Your task to perform on an android device: open chrome and create a bookmark for the current page Image 0: 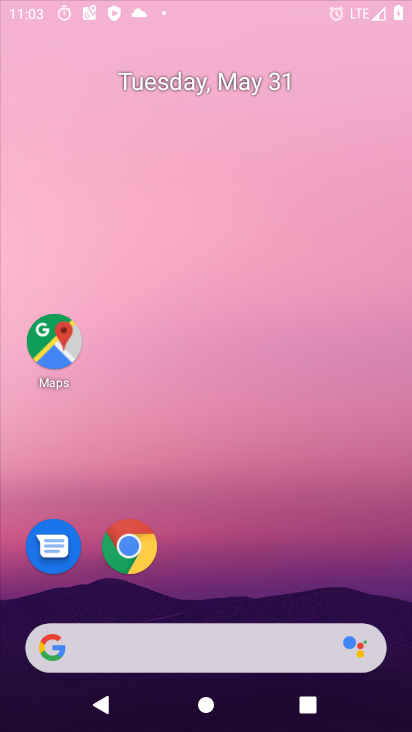
Step 0: click (255, 62)
Your task to perform on an android device: open chrome and create a bookmark for the current page Image 1: 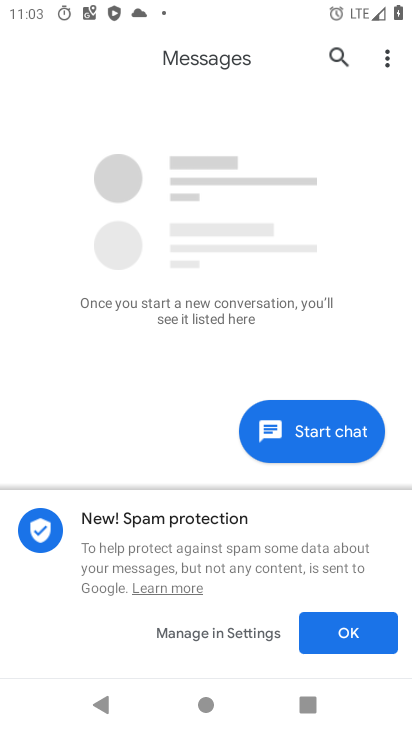
Step 1: drag from (228, 546) to (231, 198)
Your task to perform on an android device: open chrome and create a bookmark for the current page Image 2: 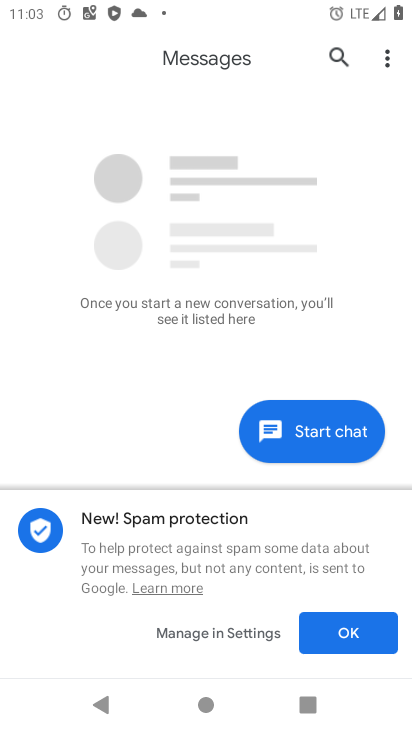
Step 2: press home button
Your task to perform on an android device: open chrome and create a bookmark for the current page Image 3: 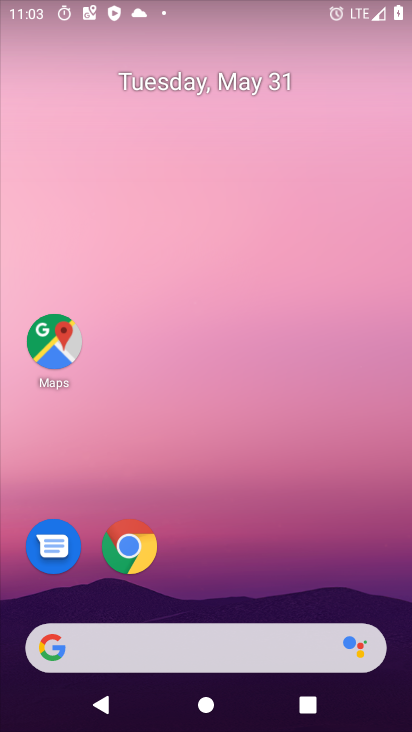
Step 3: click (137, 535)
Your task to perform on an android device: open chrome and create a bookmark for the current page Image 4: 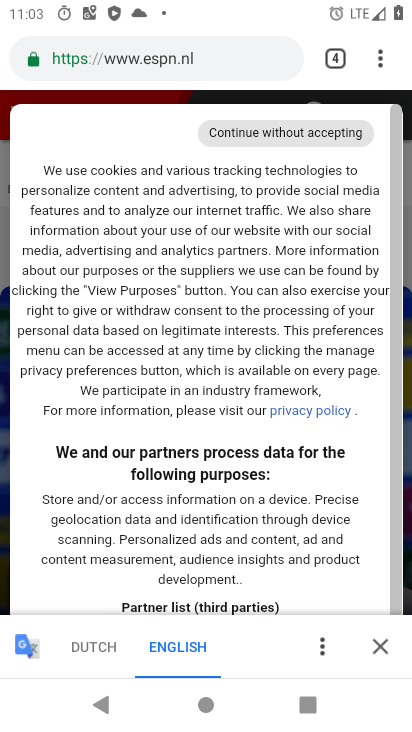
Step 4: click (376, 50)
Your task to perform on an android device: open chrome and create a bookmark for the current page Image 5: 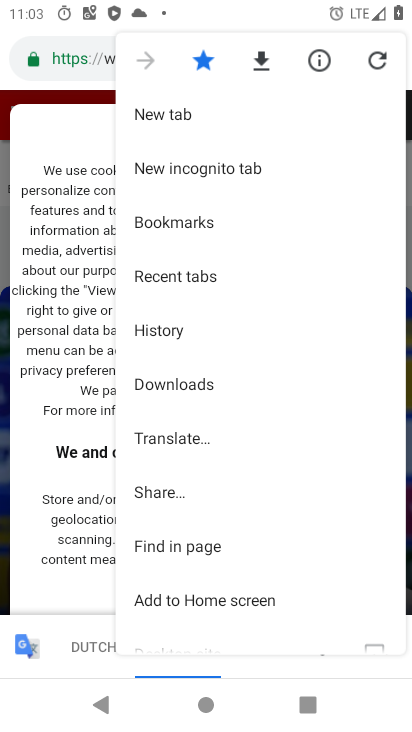
Step 5: task complete